Your task to perform on an android device: Open Amazon Image 0: 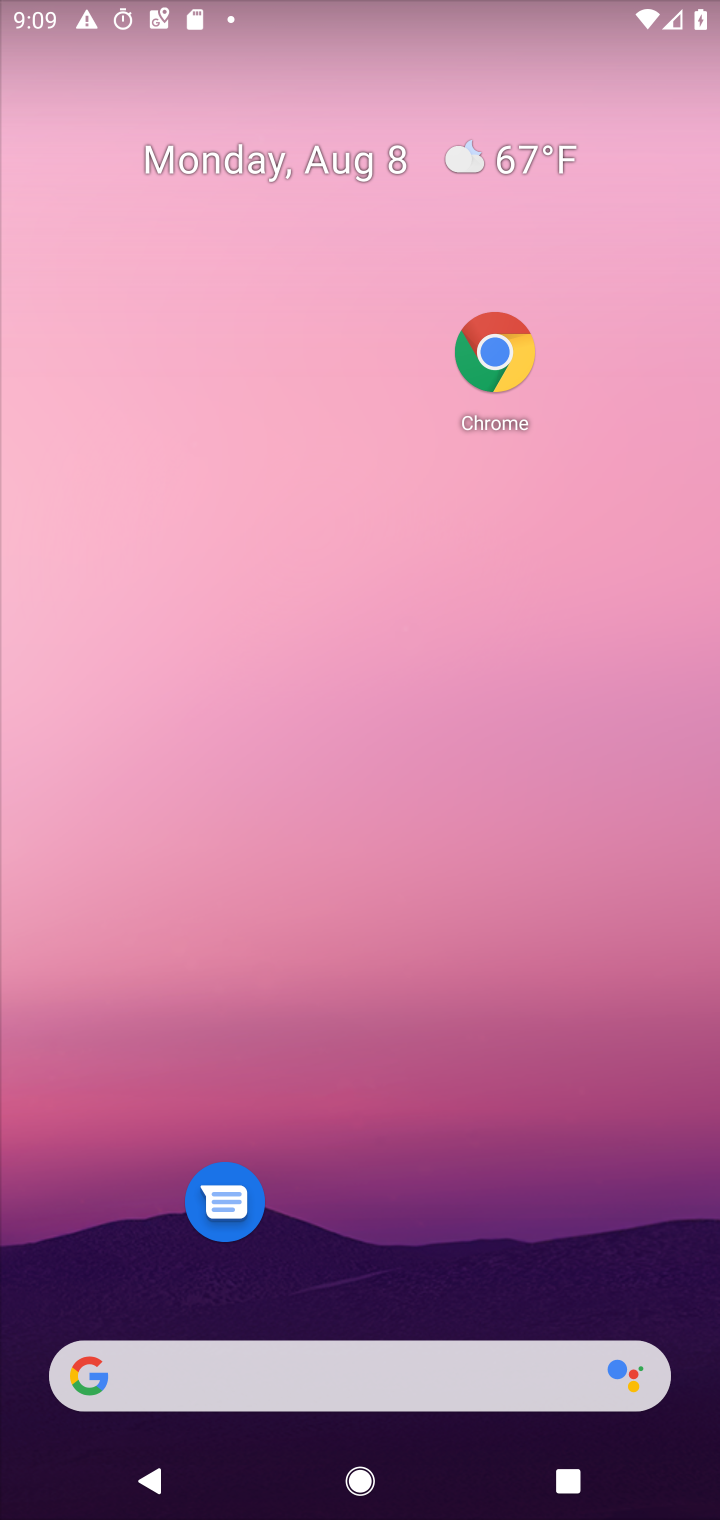
Step 0: drag from (441, 1141) to (353, 137)
Your task to perform on an android device: Open Amazon Image 1: 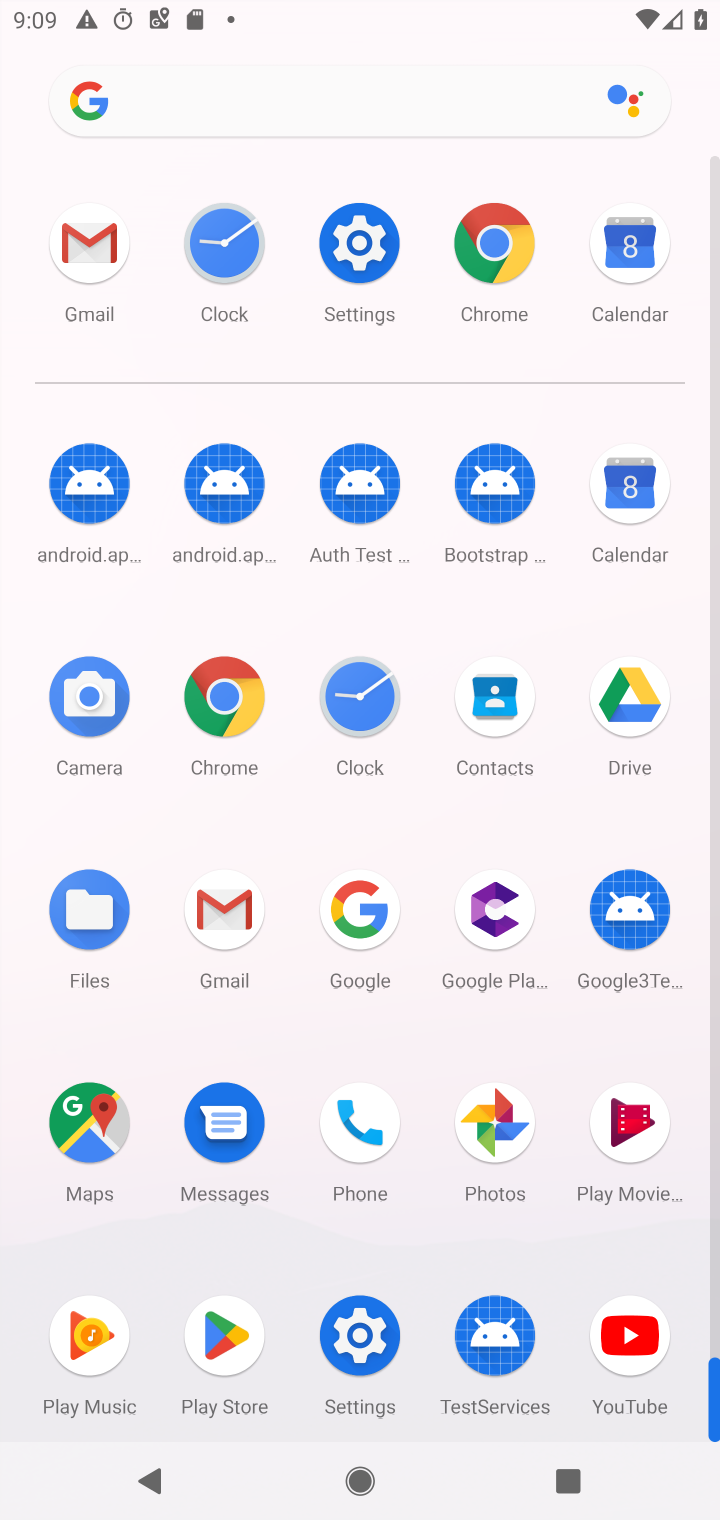
Step 1: click (230, 837)
Your task to perform on an android device: Open Amazon Image 2: 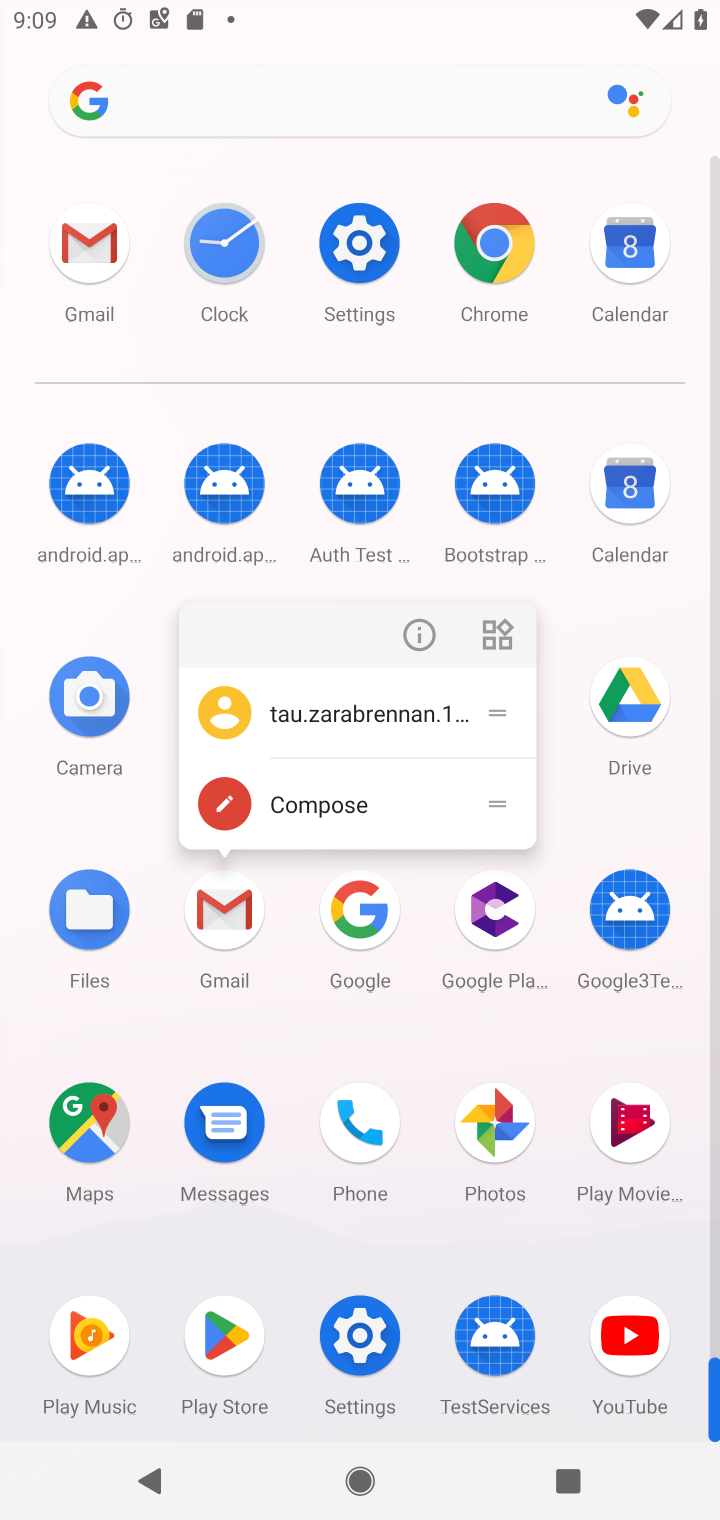
Step 2: click (495, 292)
Your task to perform on an android device: Open Amazon Image 3: 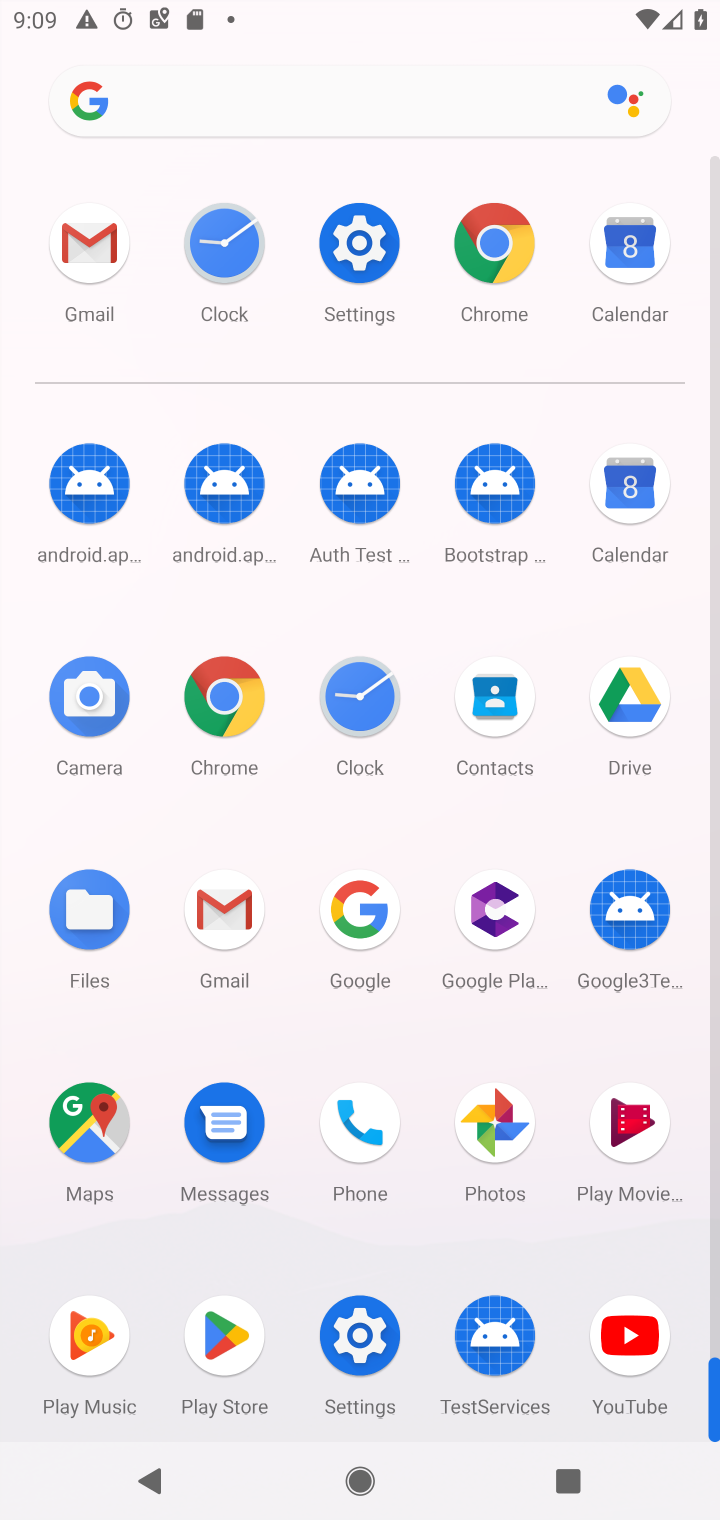
Step 3: click (506, 290)
Your task to perform on an android device: Open Amazon Image 4: 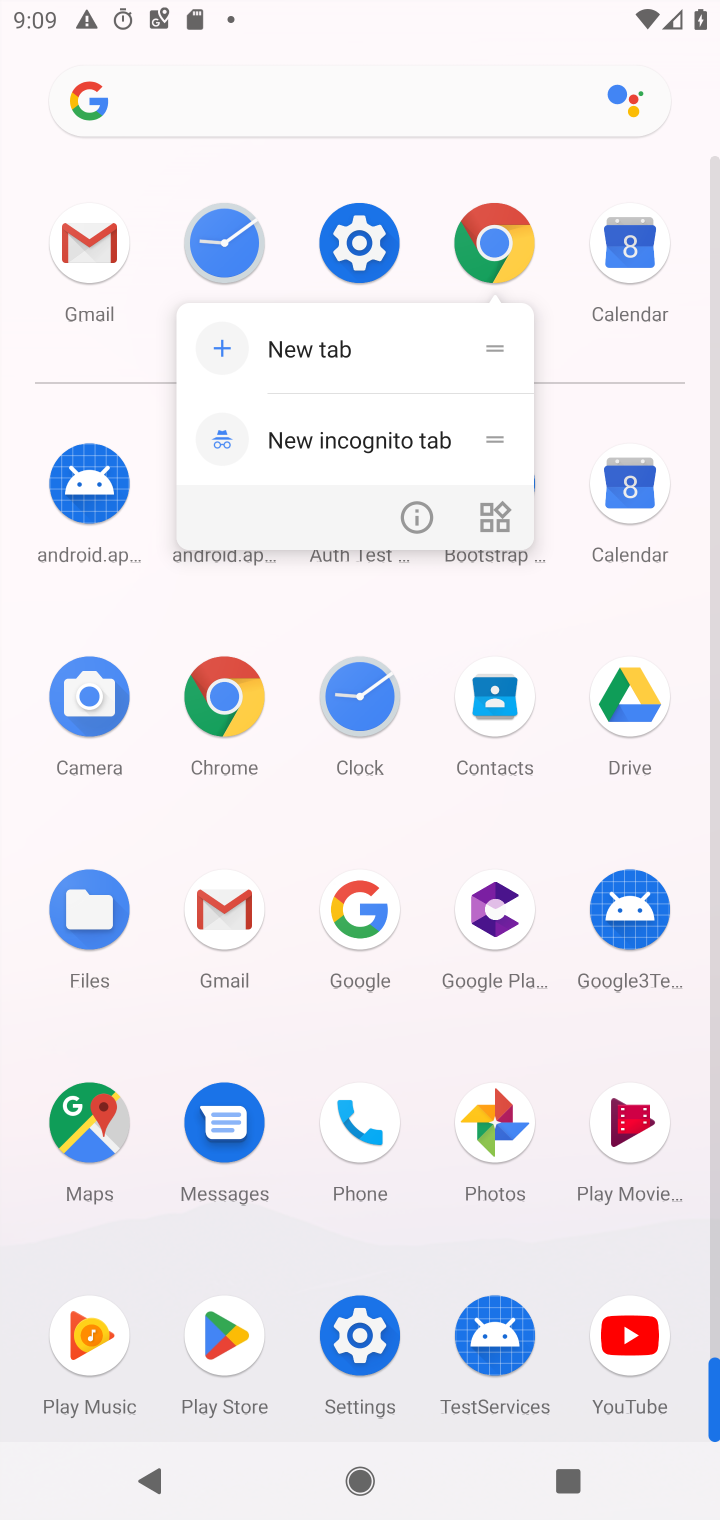
Step 4: click (509, 225)
Your task to perform on an android device: Open Amazon Image 5: 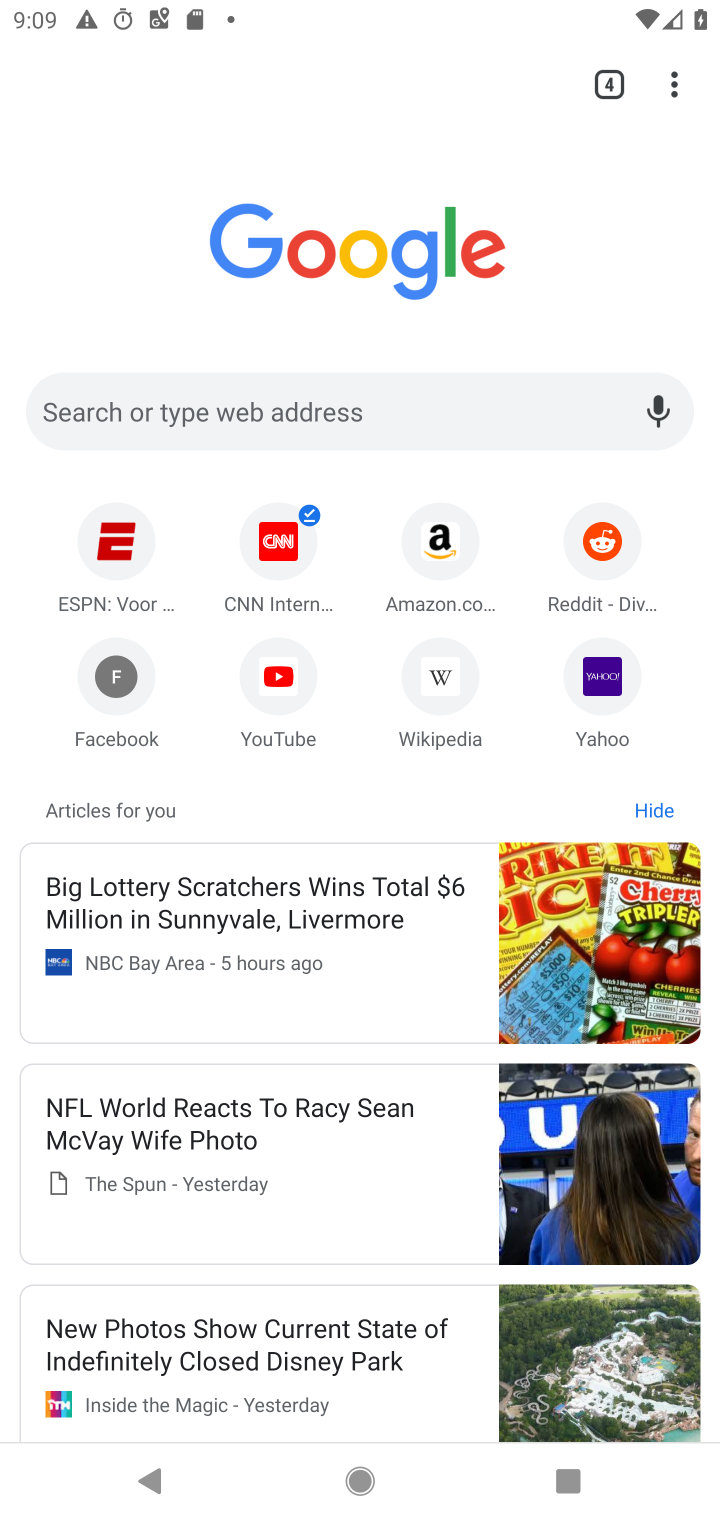
Step 5: click (461, 570)
Your task to perform on an android device: Open Amazon Image 6: 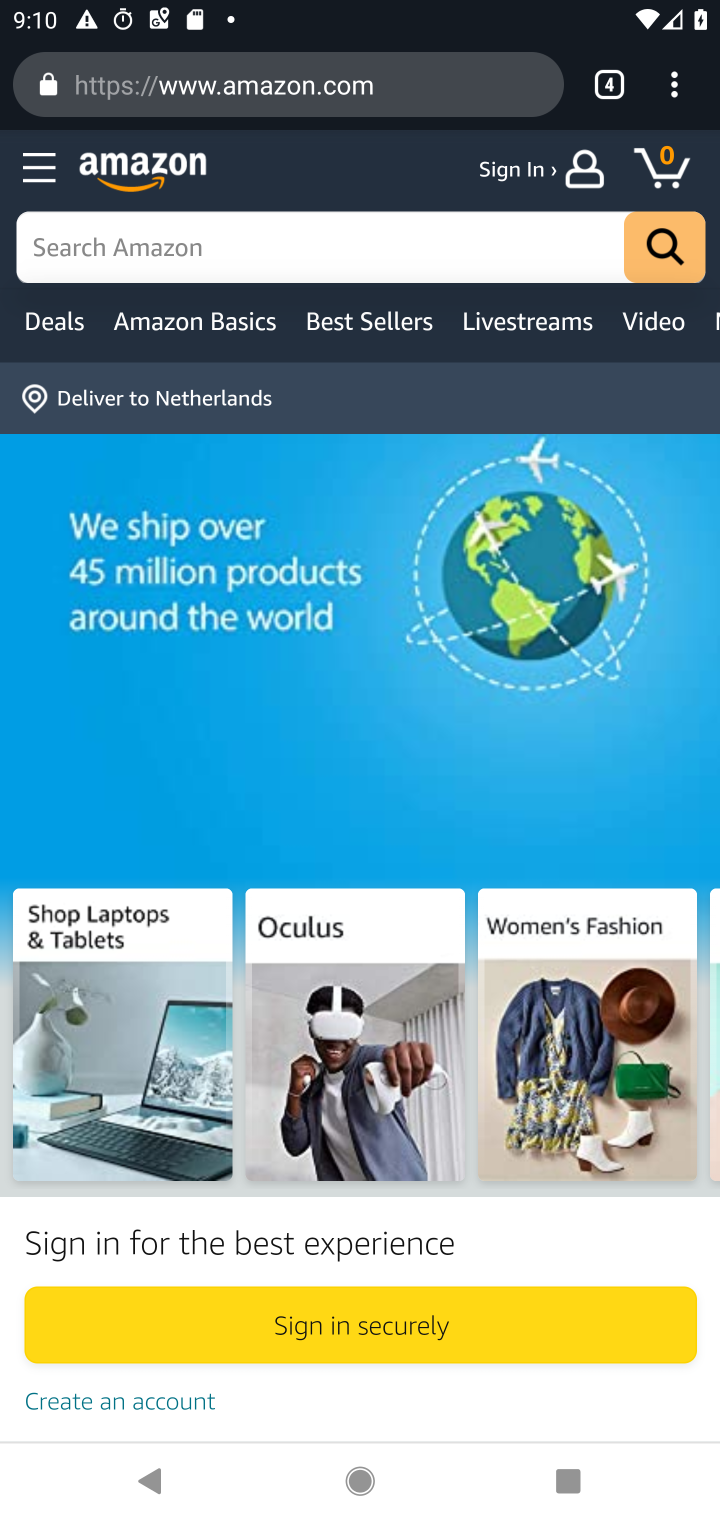
Step 6: task complete